Your task to perform on an android device: add a contact in the contacts app Image 0: 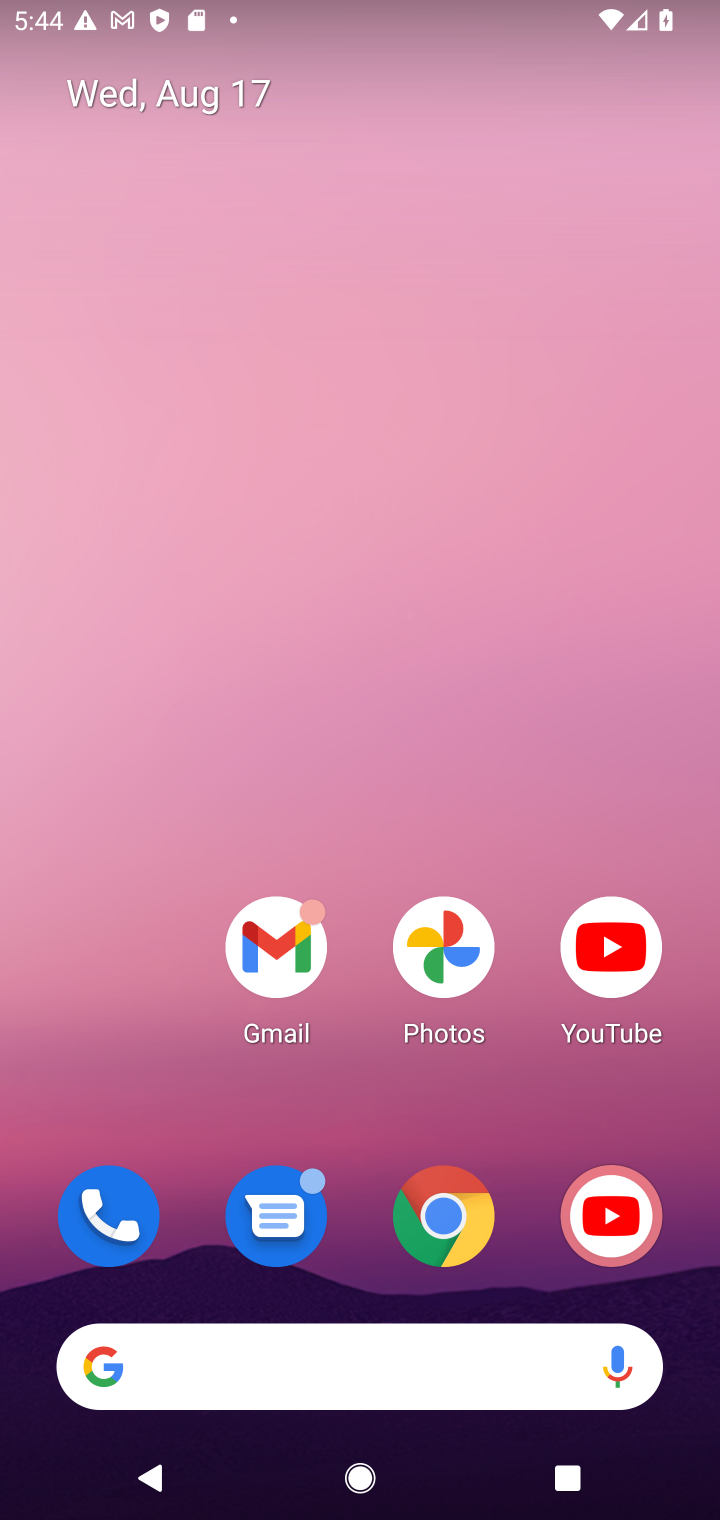
Step 0: drag from (473, 1073) to (400, 182)
Your task to perform on an android device: add a contact in the contacts app Image 1: 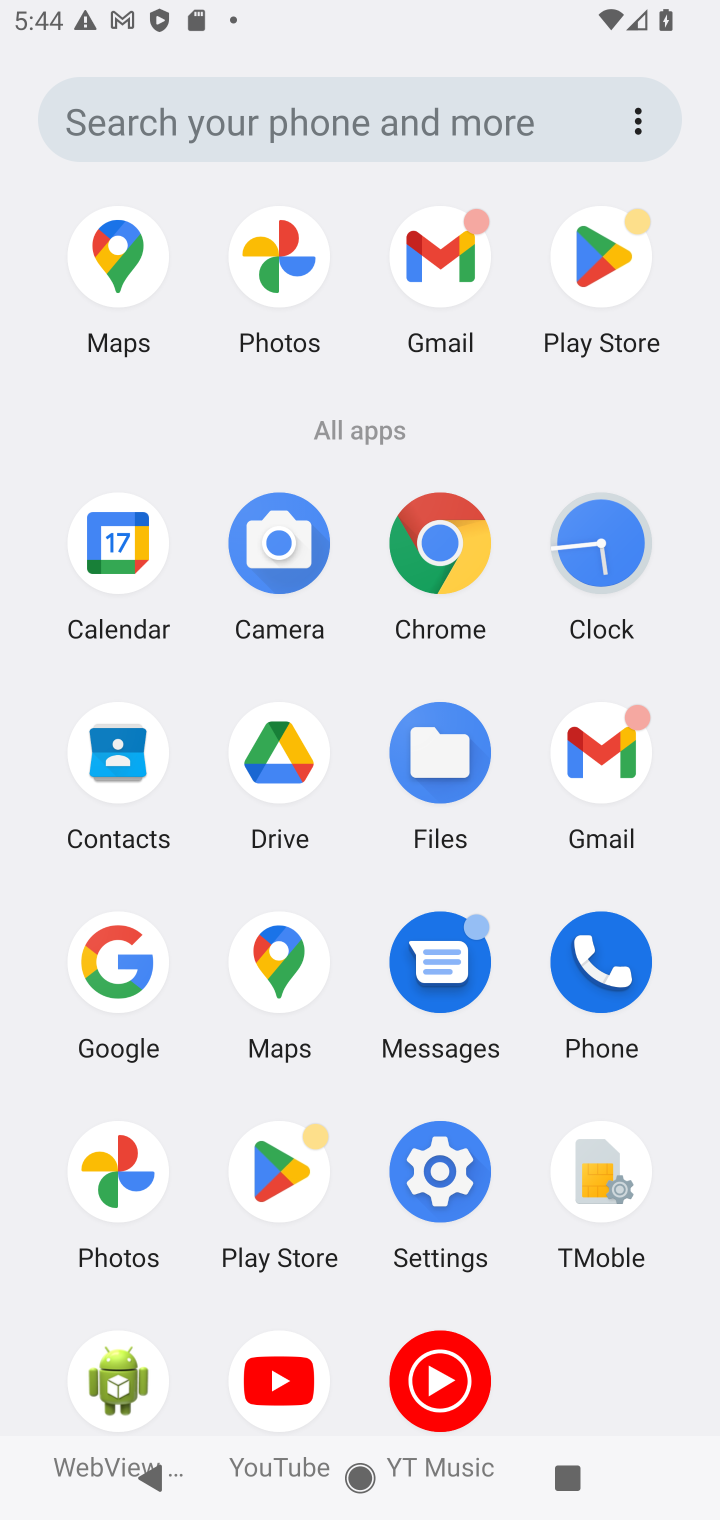
Step 1: click (125, 753)
Your task to perform on an android device: add a contact in the contacts app Image 2: 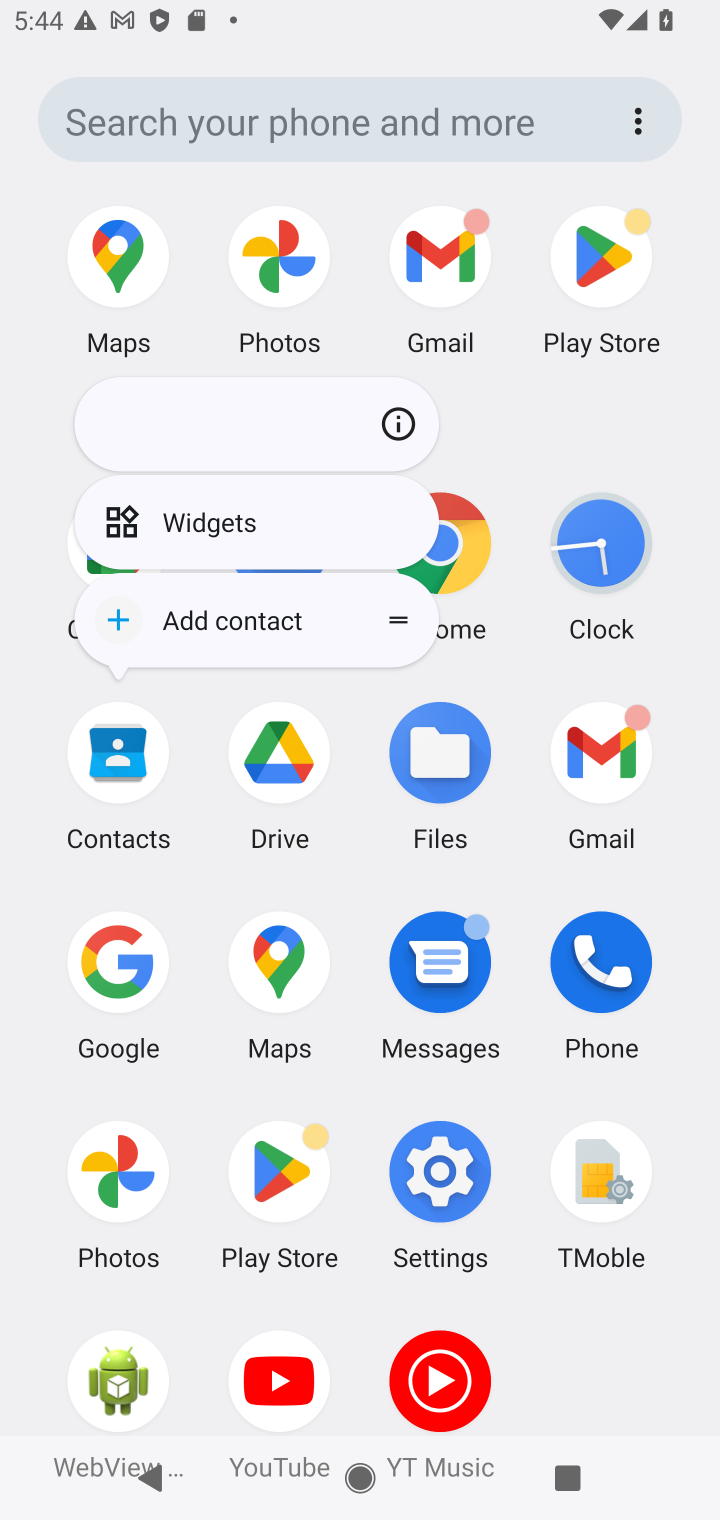
Step 2: click (109, 754)
Your task to perform on an android device: add a contact in the contacts app Image 3: 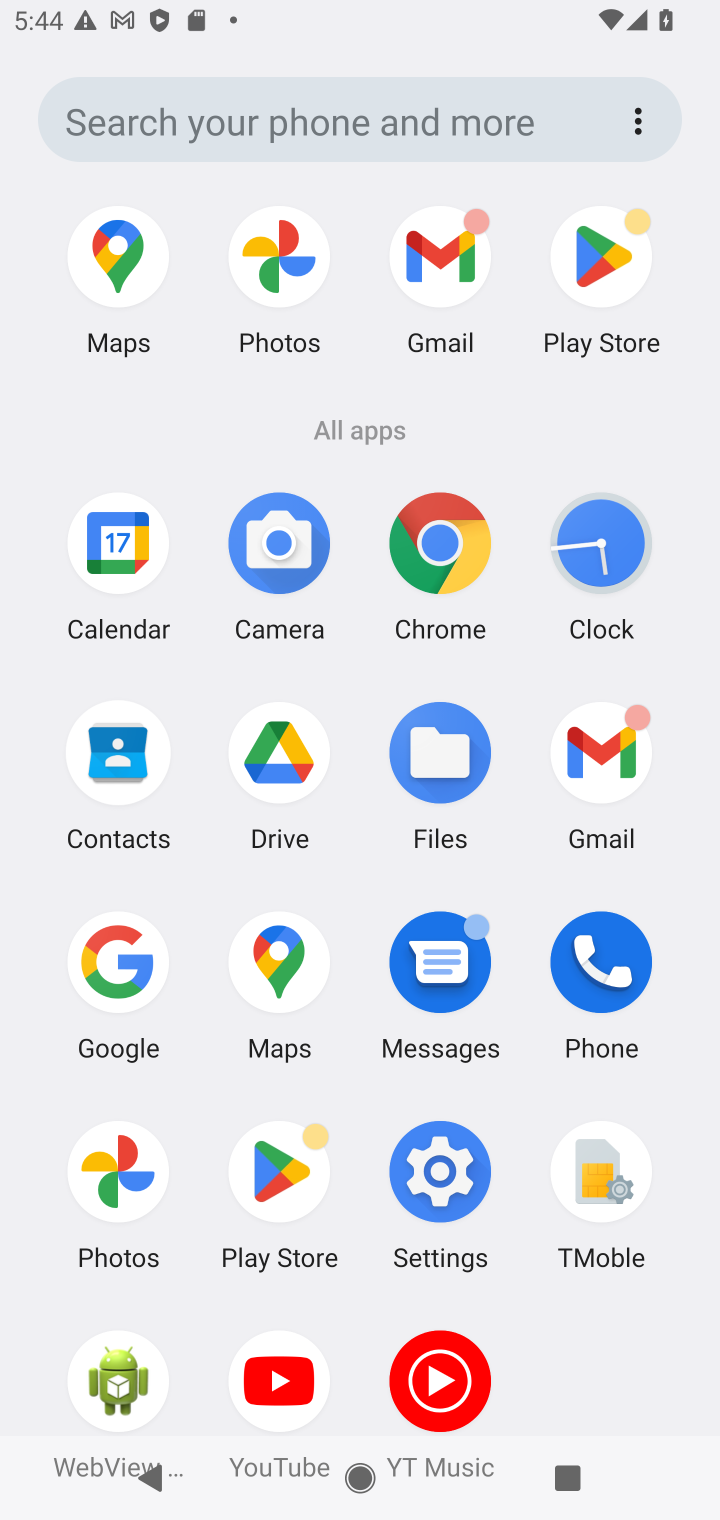
Step 3: click (109, 754)
Your task to perform on an android device: add a contact in the contacts app Image 4: 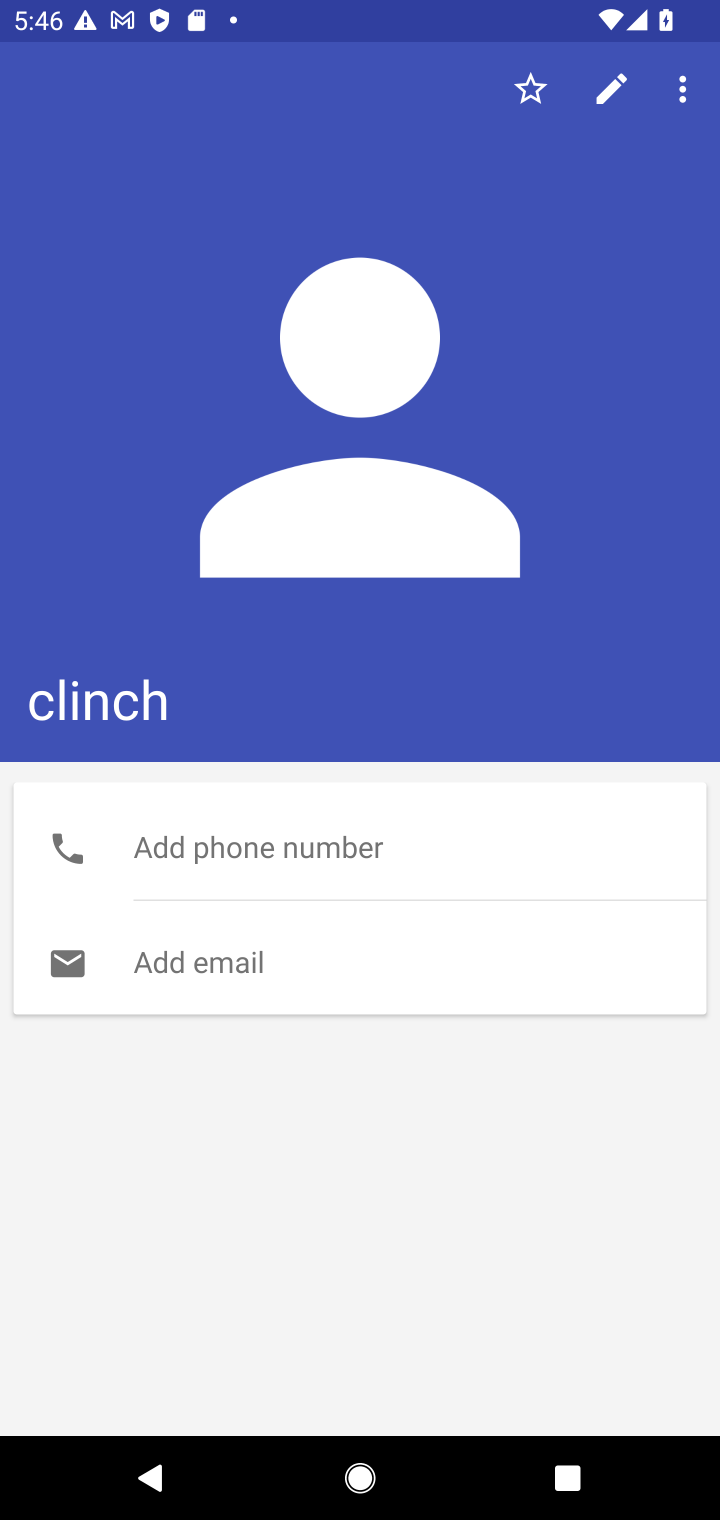
Step 4: press back button
Your task to perform on an android device: add a contact in the contacts app Image 5: 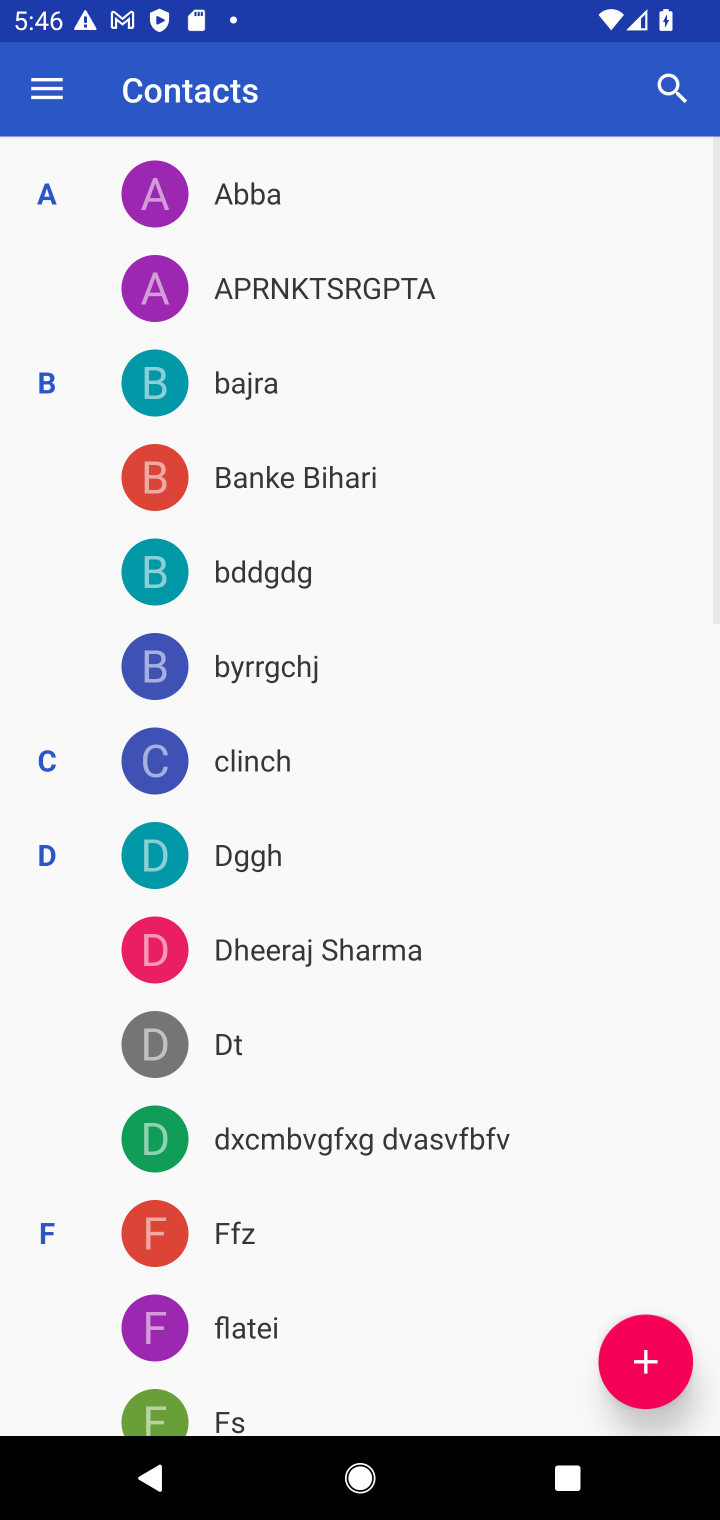
Step 5: click (618, 1357)
Your task to perform on an android device: add a contact in the contacts app Image 6: 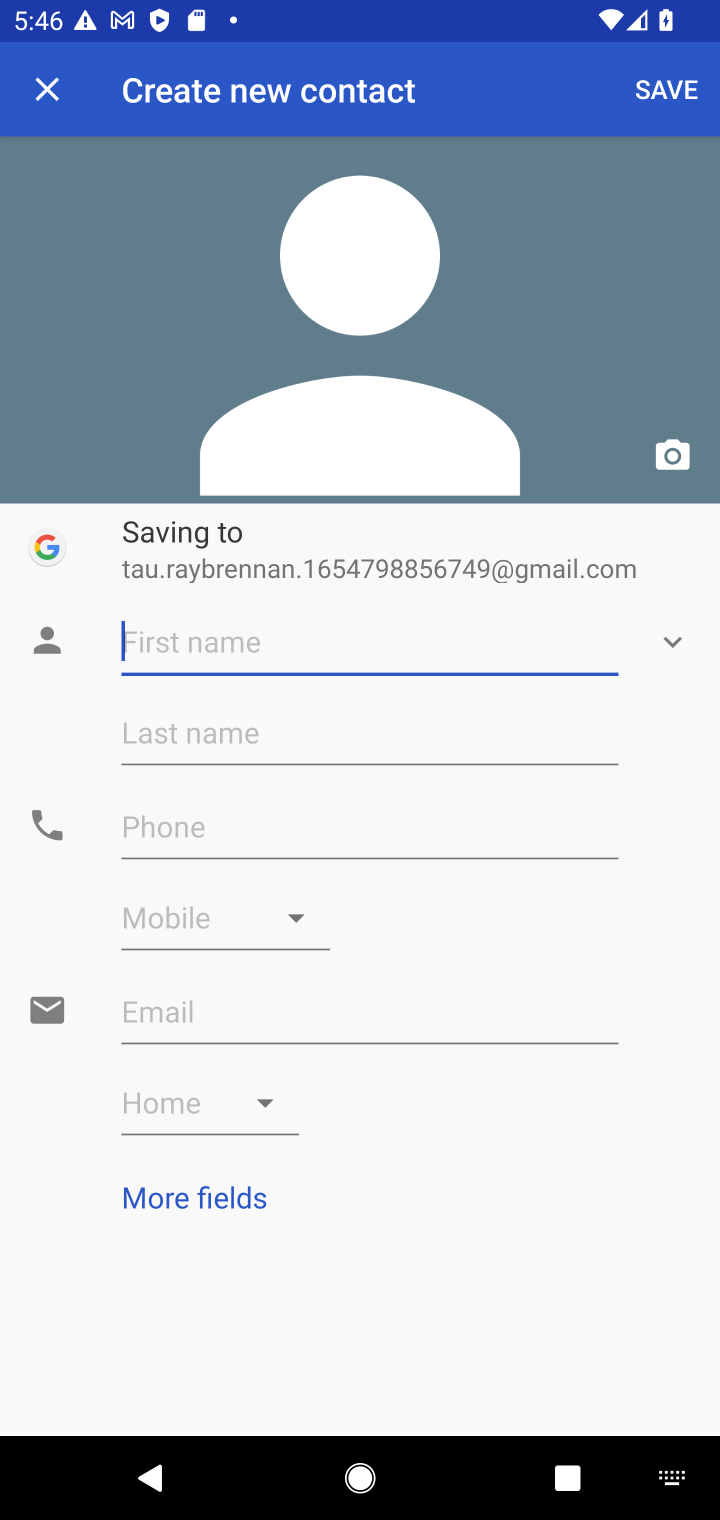
Step 6: type "jjhh"
Your task to perform on an android device: add a contact in the contacts app Image 7: 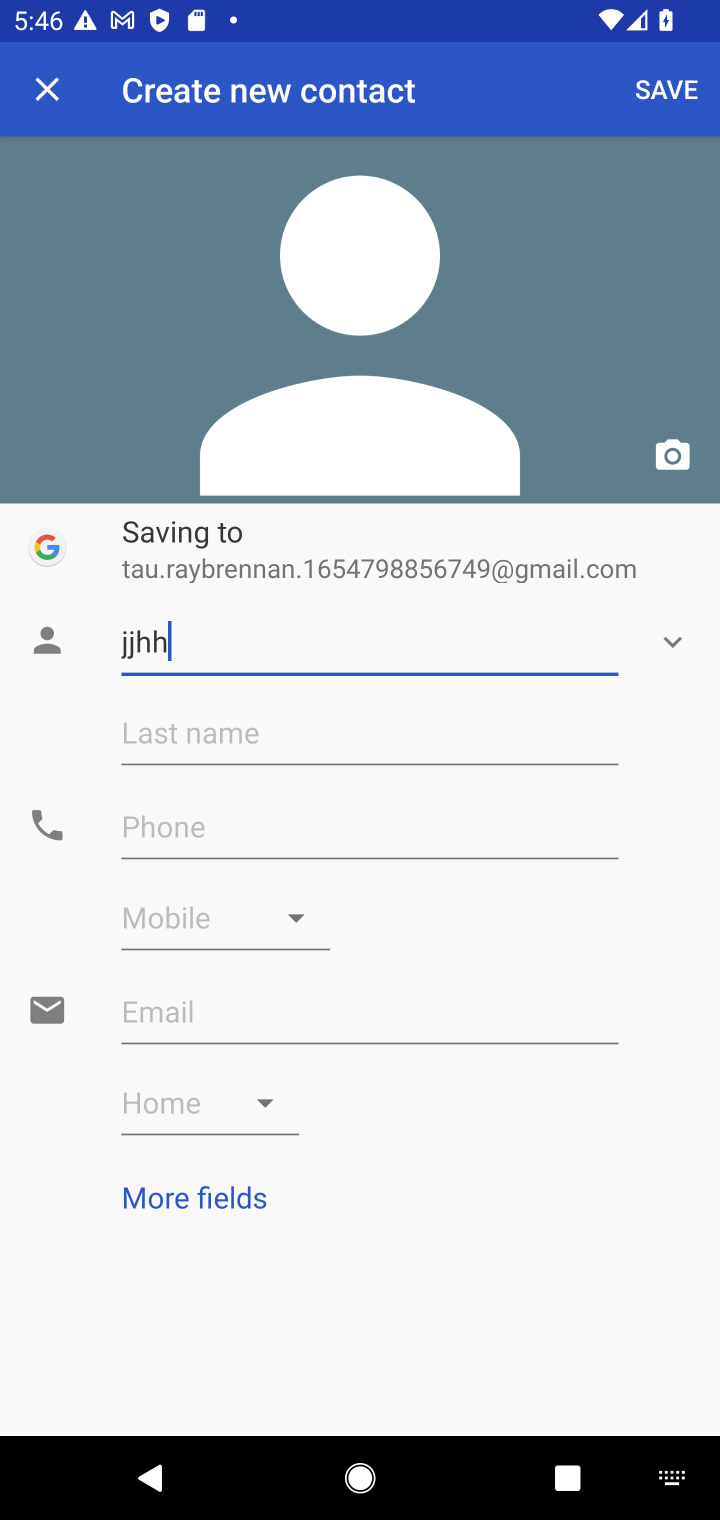
Step 7: click (459, 851)
Your task to perform on an android device: add a contact in the contacts app Image 8: 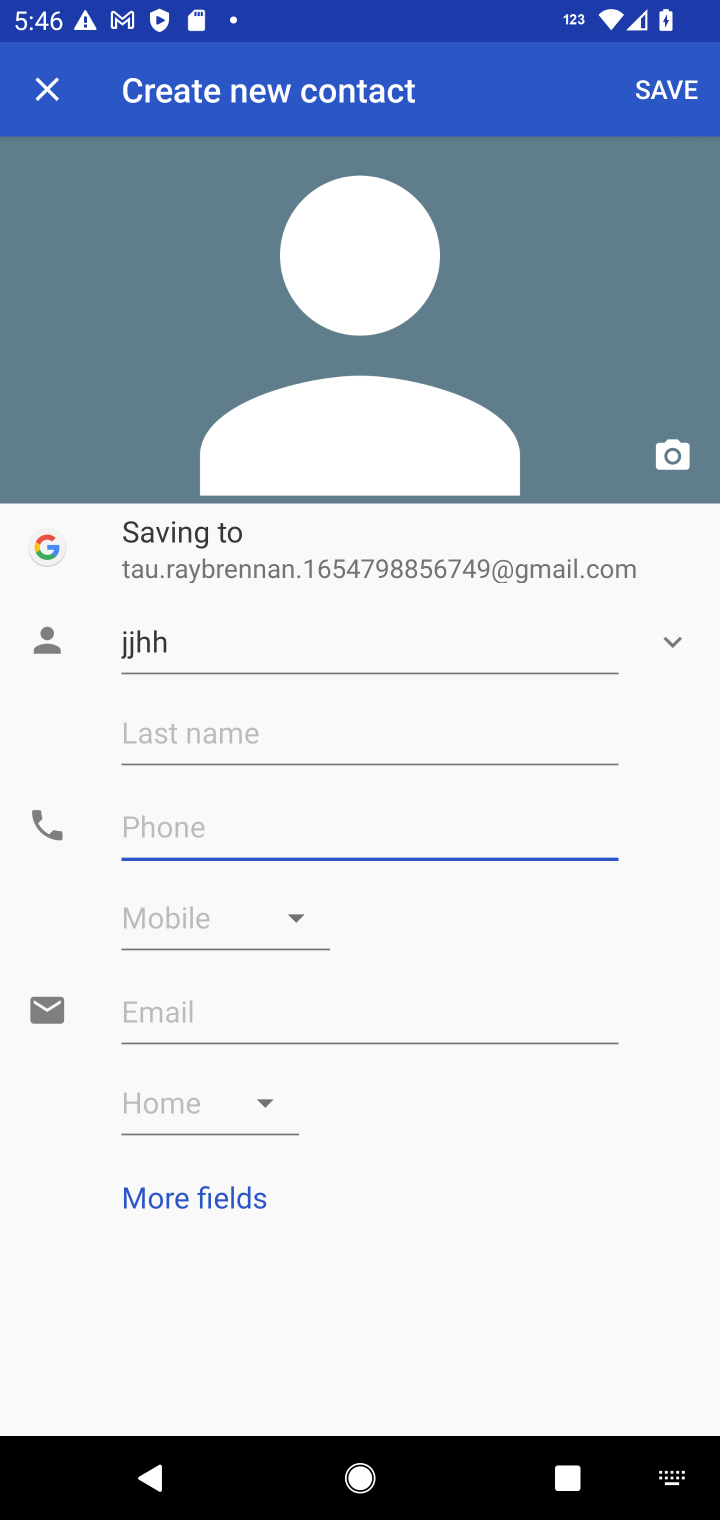
Step 8: type "6699"
Your task to perform on an android device: add a contact in the contacts app Image 9: 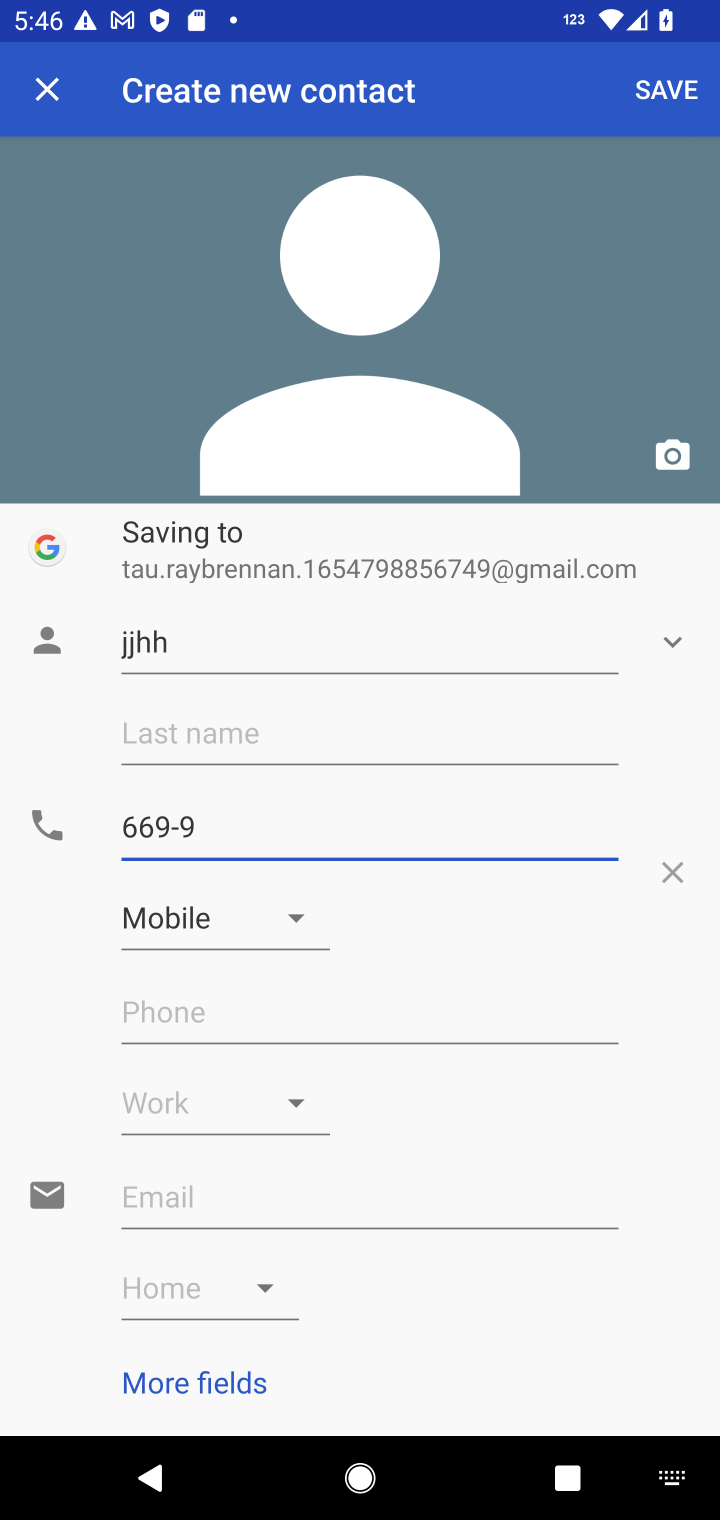
Step 9: click (667, 101)
Your task to perform on an android device: add a contact in the contacts app Image 10: 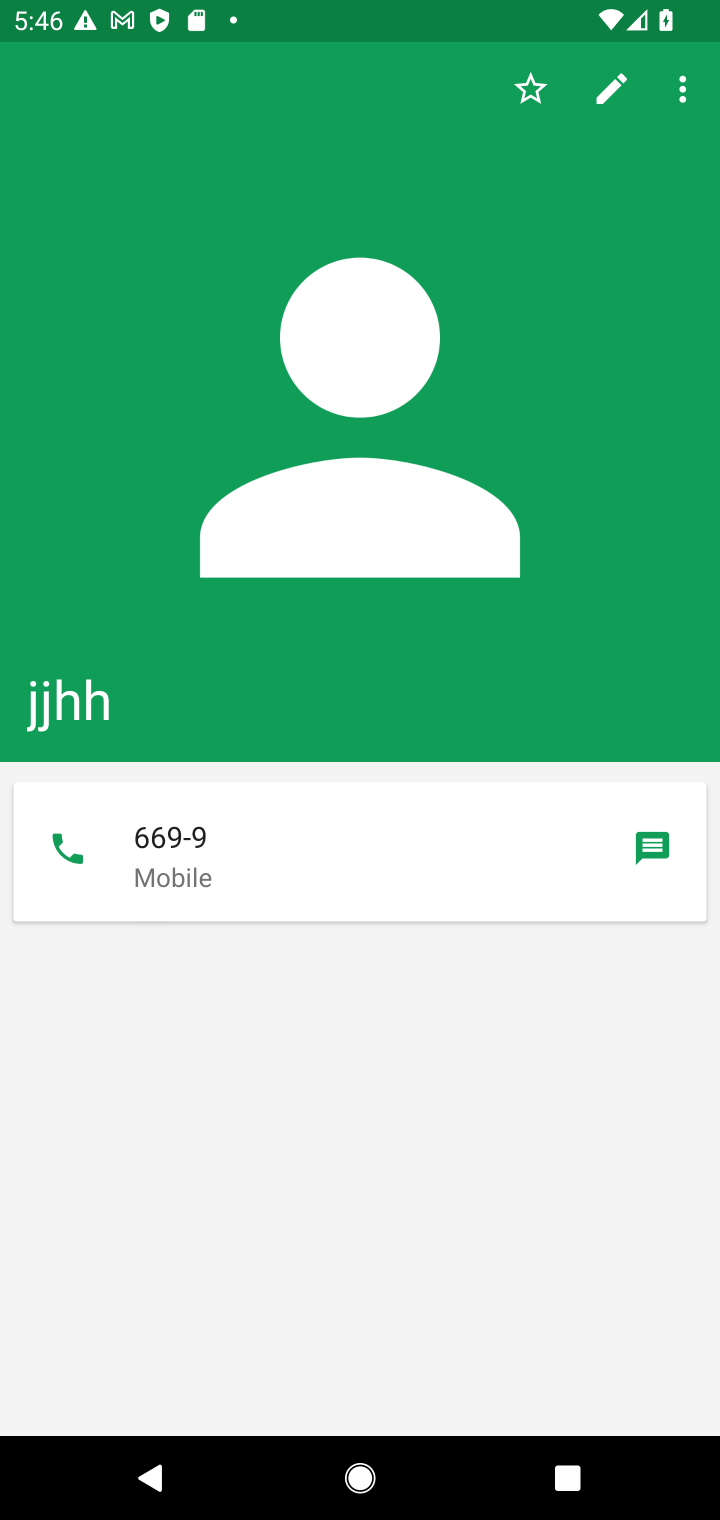
Step 10: task complete